Your task to perform on an android device: Is it going to rain today? Image 0: 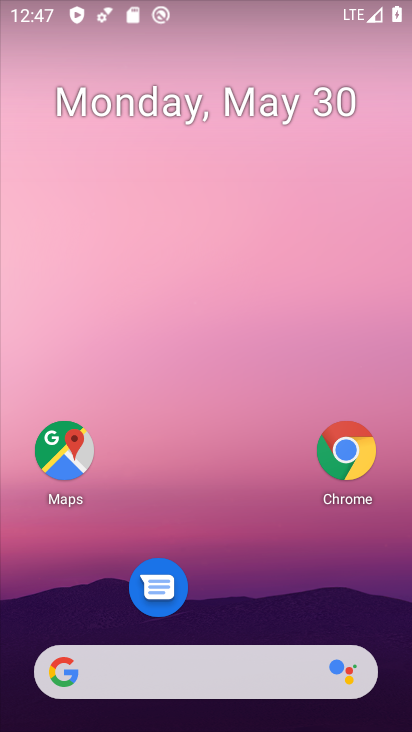
Step 0: drag from (272, 582) to (244, 131)
Your task to perform on an android device: Is it going to rain today? Image 1: 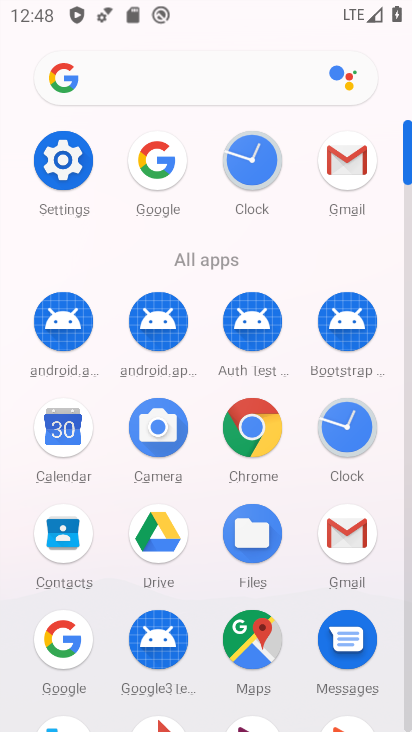
Step 1: click (150, 171)
Your task to perform on an android device: Is it going to rain today? Image 2: 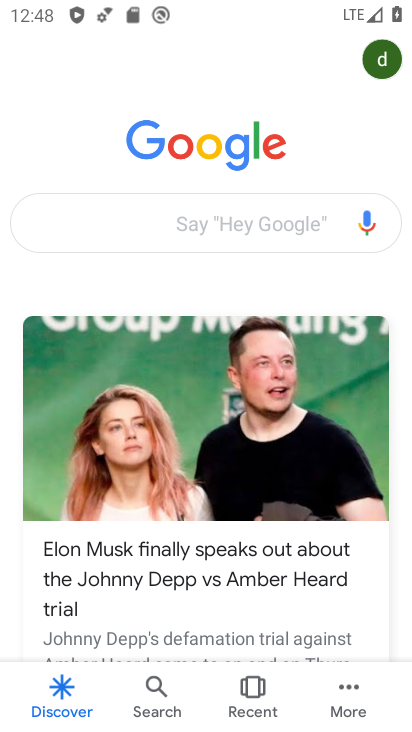
Step 2: click (216, 198)
Your task to perform on an android device: Is it going to rain today? Image 3: 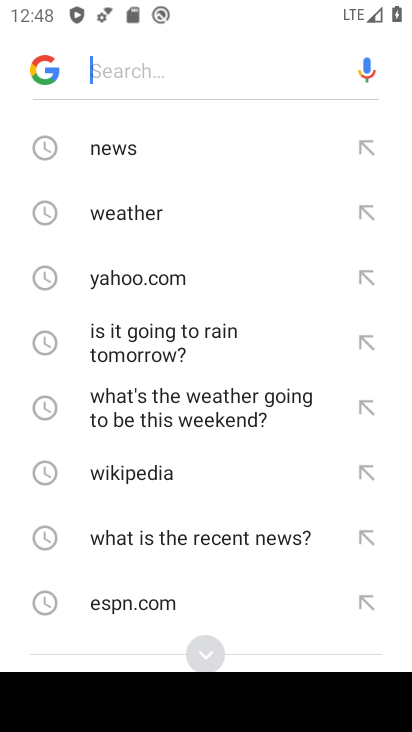
Step 3: drag from (223, 410) to (270, 124)
Your task to perform on an android device: Is it going to rain today? Image 4: 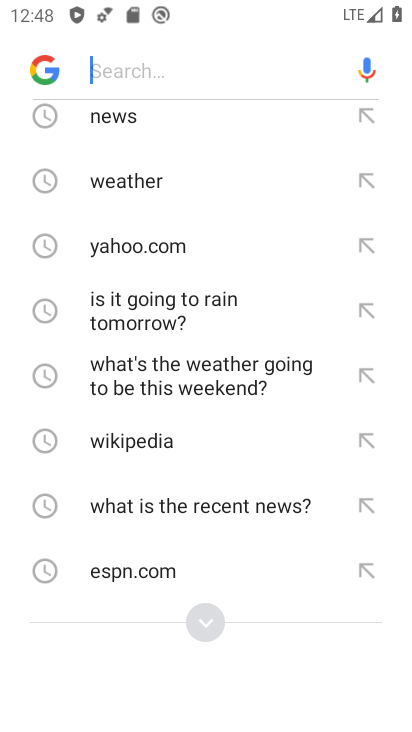
Step 4: click (204, 626)
Your task to perform on an android device: Is it going to rain today? Image 5: 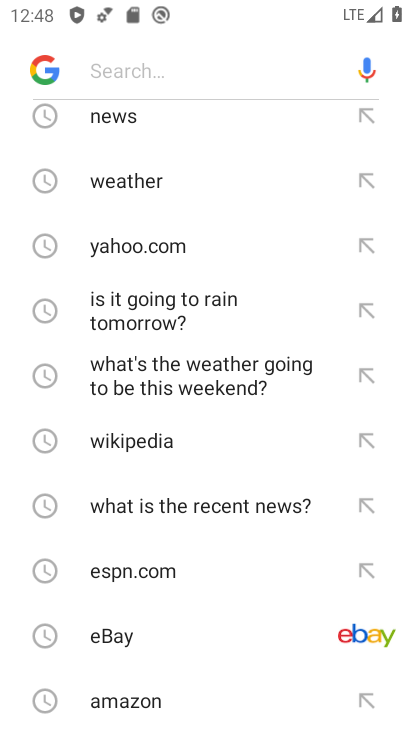
Step 5: drag from (222, 634) to (240, 184)
Your task to perform on an android device: Is it going to rain today? Image 6: 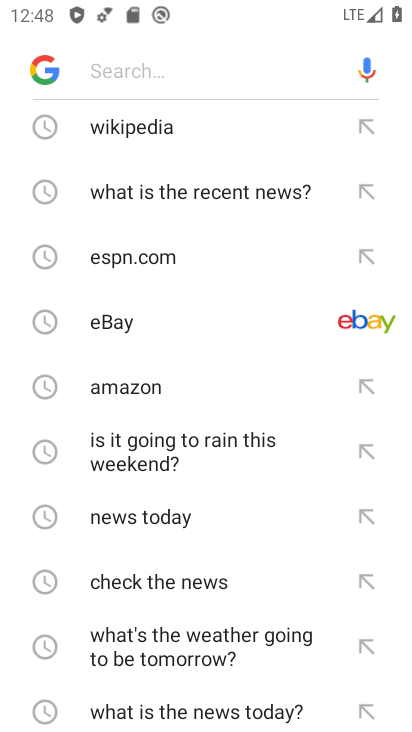
Step 6: drag from (210, 596) to (217, 293)
Your task to perform on an android device: Is it going to rain today? Image 7: 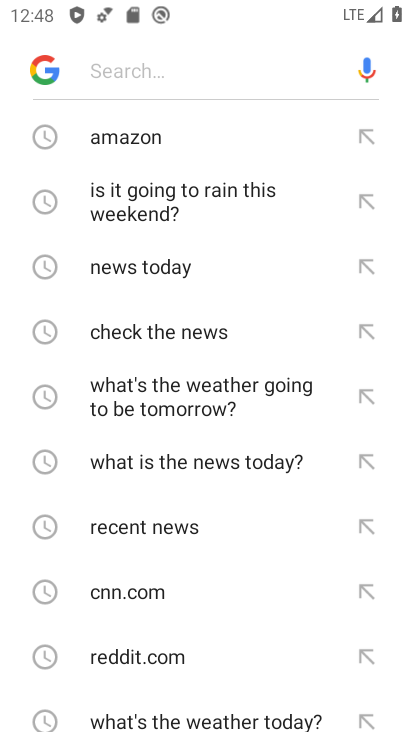
Step 7: drag from (204, 643) to (240, 235)
Your task to perform on an android device: Is it going to rain today? Image 8: 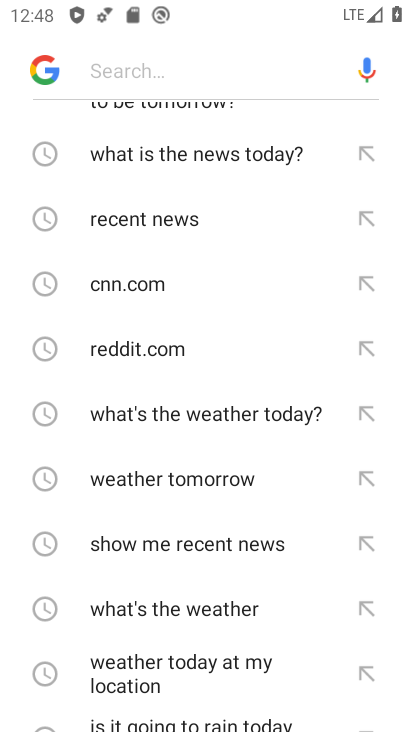
Step 8: drag from (237, 624) to (222, 328)
Your task to perform on an android device: Is it going to rain today? Image 9: 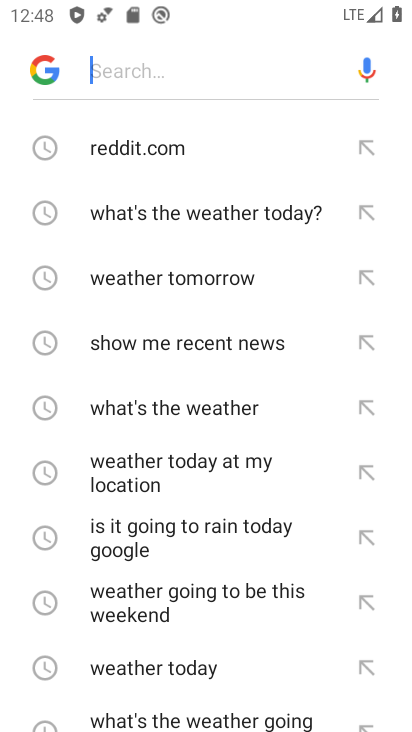
Step 9: drag from (144, 665) to (204, 506)
Your task to perform on an android device: Is it going to rain today? Image 10: 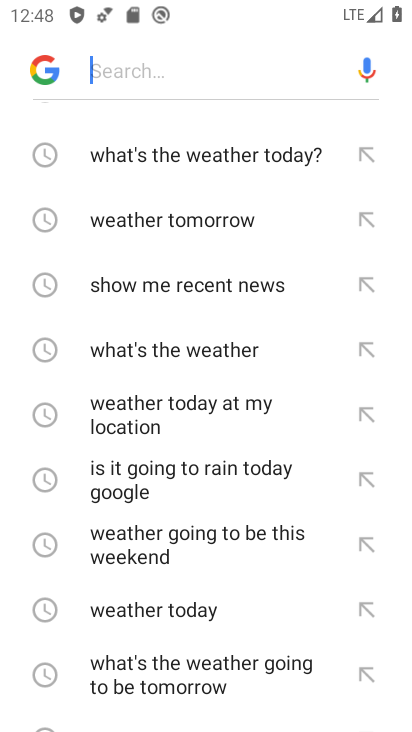
Step 10: type "is it going to rain today"
Your task to perform on an android device: Is it going to rain today? Image 11: 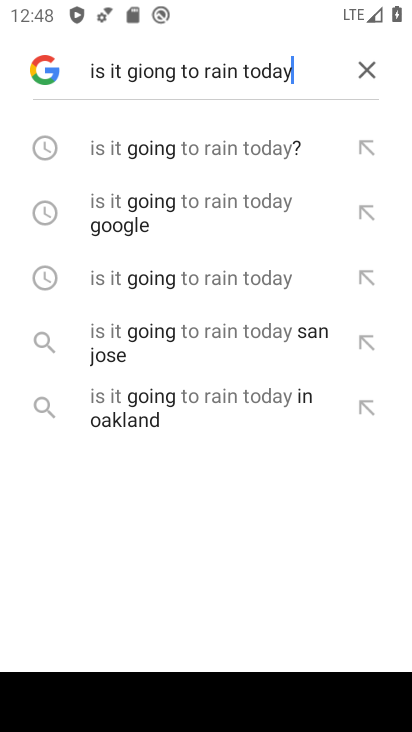
Step 11: click (178, 145)
Your task to perform on an android device: Is it going to rain today? Image 12: 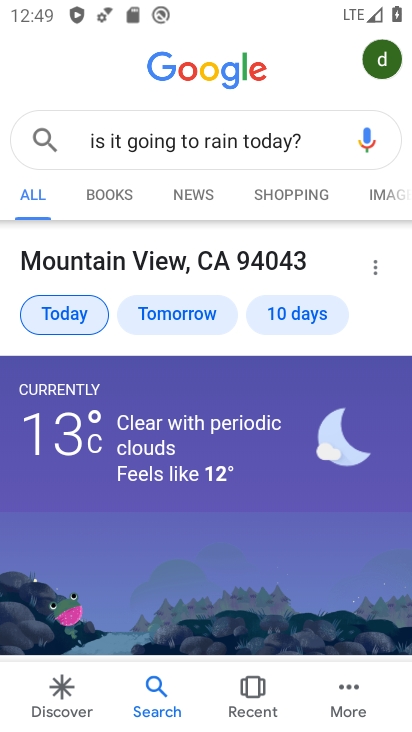
Step 12: task complete